Your task to perform on an android device: Open CNN.com Image 0: 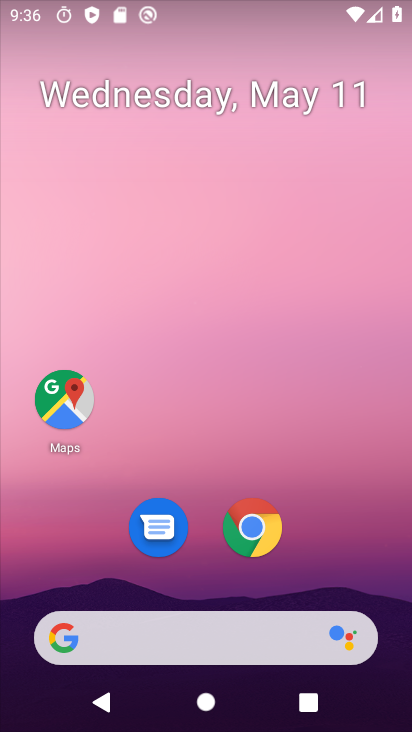
Step 0: drag from (242, 665) to (254, 251)
Your task to perform on an android device: Open CNN.com Image 1: 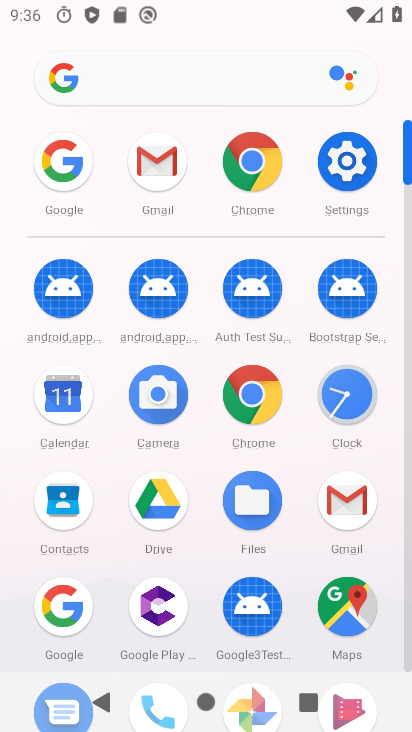
Step 1: click (256, 210)
Your task to perform on an android device: Open CNN.com Image 2: 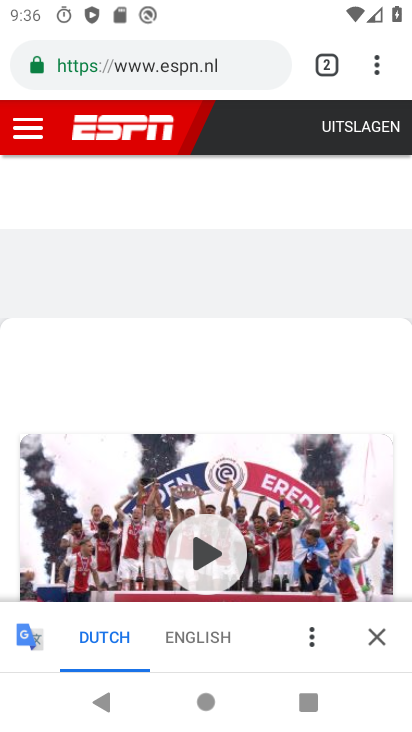
Step 2: click (234, 69)
Your task to perform on an android device: Open CNN.com Image 3: 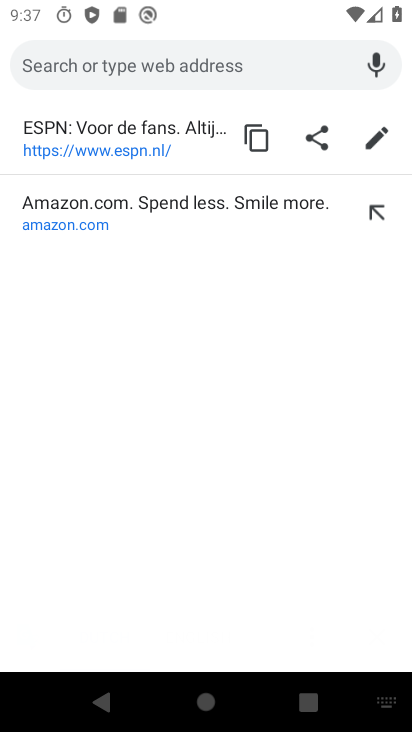
Step 3: type "cnn"
Your task to perform on an android device: Open CNN.com Image 4: 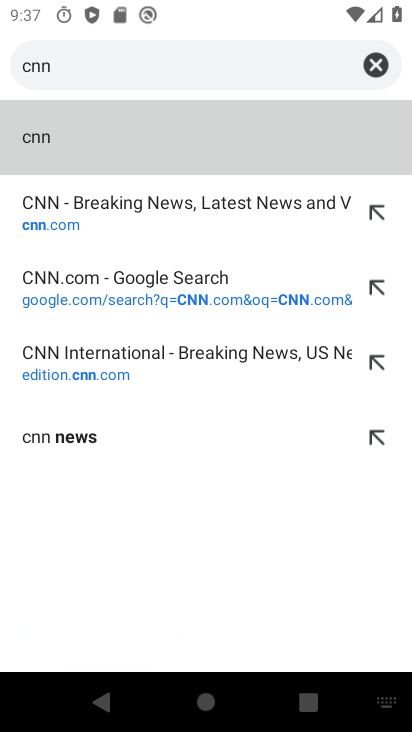
Step 4: click (151, 211)
Your task to perform on an android device: Open CNN.com Image 5: 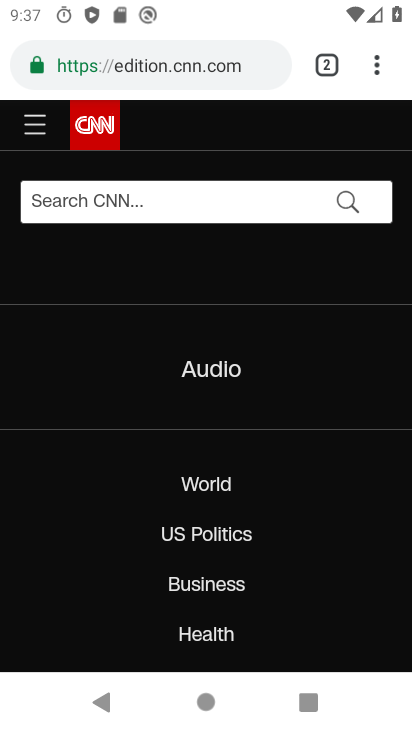
Step 5: task complete